Your task to perform on an android device: find which apps use the phone's location Image 0: 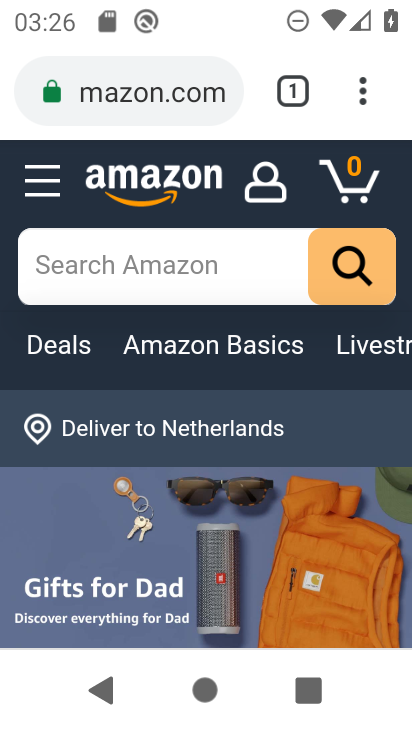
Step 0: press home button
Your task to perform on an android device: find which apps use the phone's location Image 1: 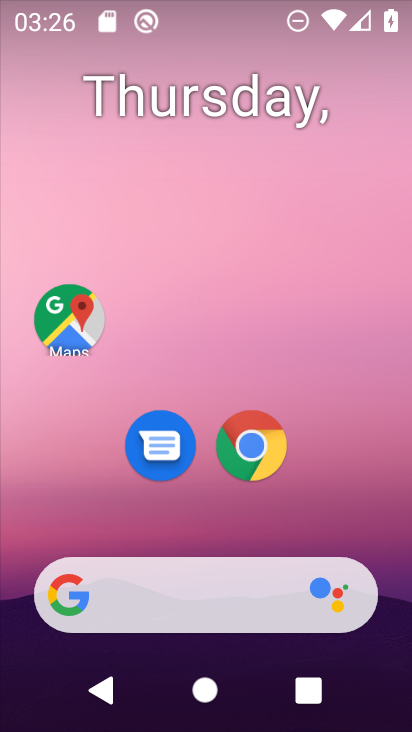
Step 1: drag from (325, 549) to (379, 8)
Your task to perform on an android device: find which apps use the phone's location Image 2: 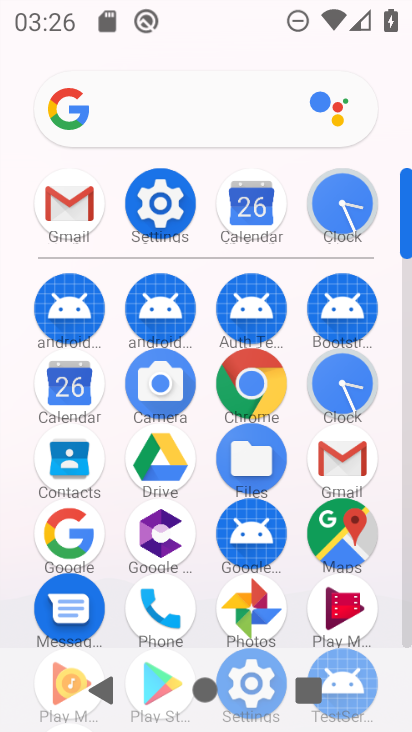
Step 2: click (161, 208)
Your task to perform on an android device: find which apps use the phone's location Image 3: 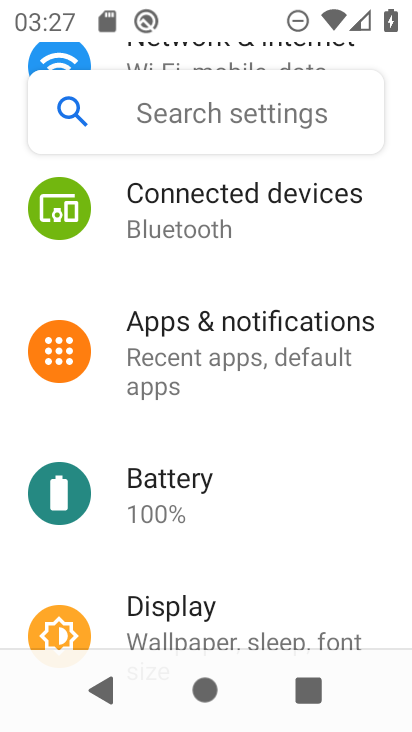
Step 3: drag from (282, 548) to (257, 211)
Your task to perform on an android device: find which apps use the phone's location Image 4: 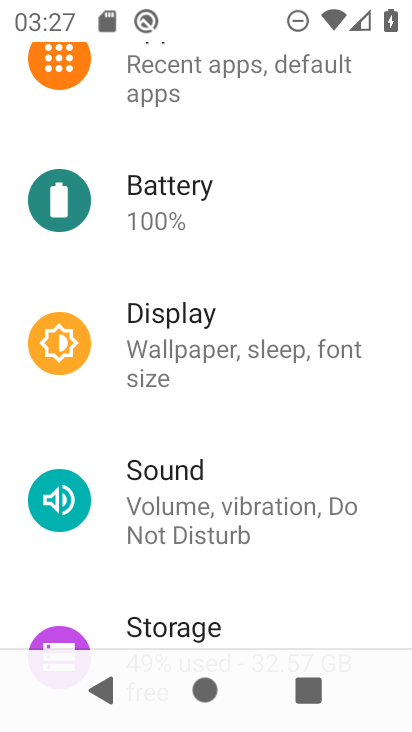
Step 4: drag from (258, 486) to (244, 209)
Your task to perform on an android device: find which apps use the phone's location Image 5: 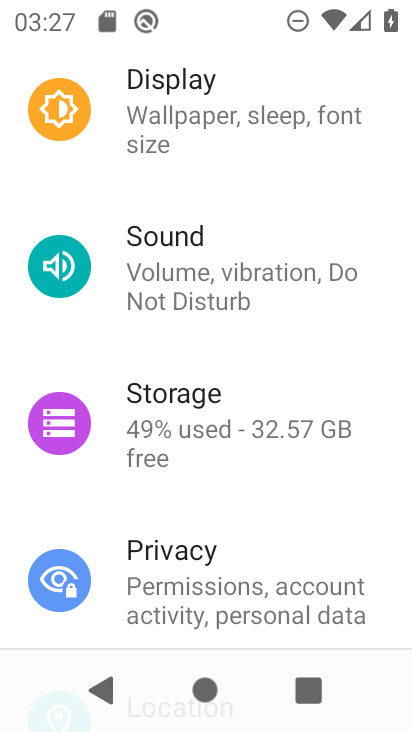
Step 5: drag from (240, 465) to (253, 169)
Your task to perform on an android device: find which apps use the phone's location Image 6: 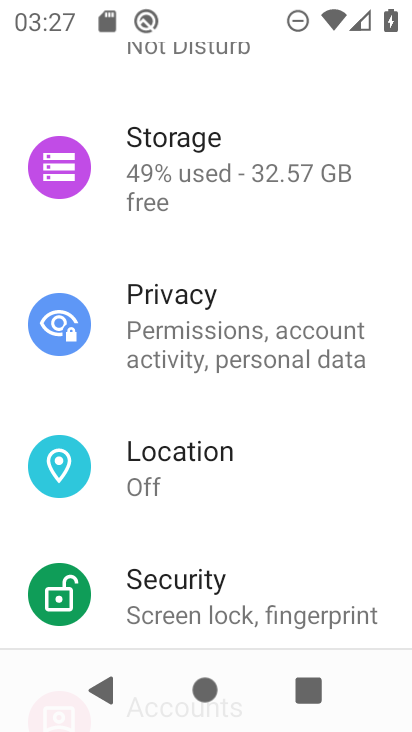
Step 6: click (170, 450)
Your task to perform on an android device: find which apps use the phone's location Image 7: 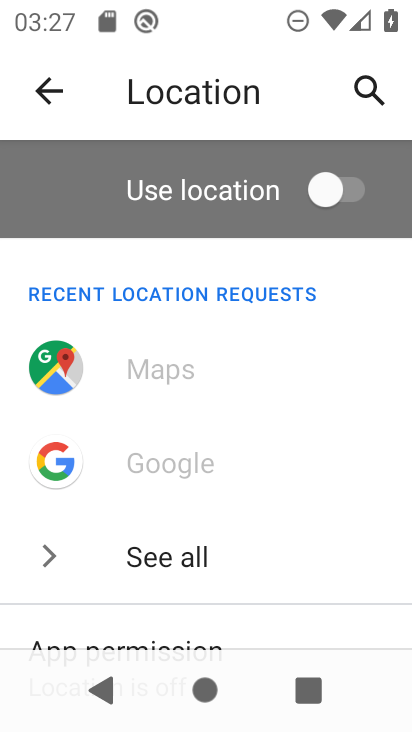
Step 7: drag from (234, 574) to (220, 200)
Your task to perform on an android device: find which apps use the phone's location Image 8: 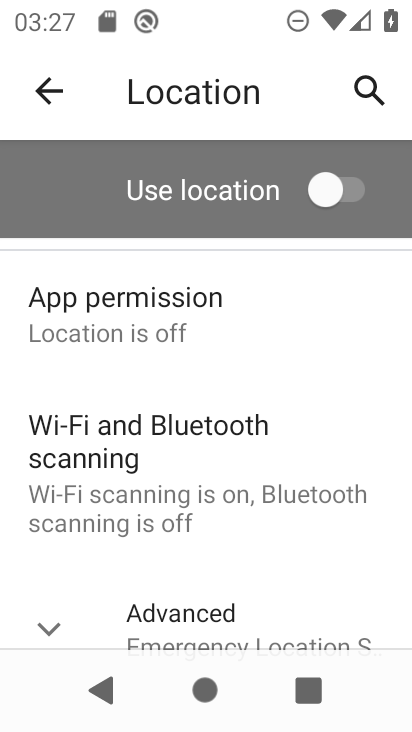
Step 8: click (96, 312)
Your task to perform on an android device: find which apps use the phone's location Image 9: 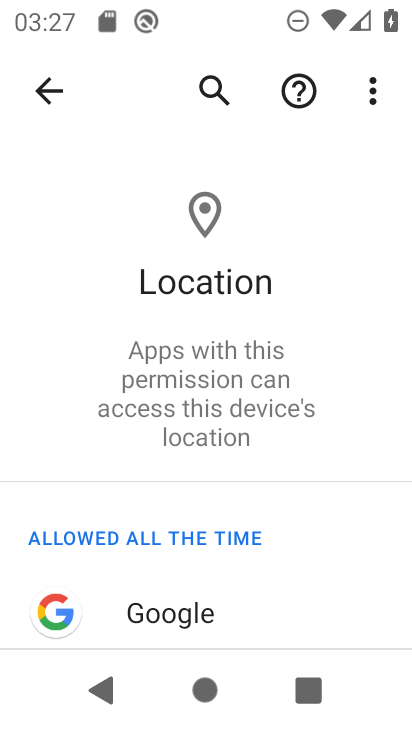
Step 9: task complete